Your task to perform on an android device: turn pop-ups off in chrome Image 0: 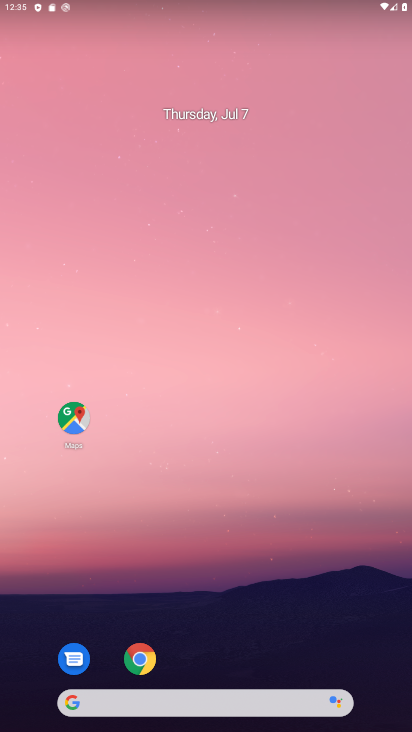
Step 0: click (142, 657)
Your task to perform on an android device: turn pop-ups off in chrome Image 1: 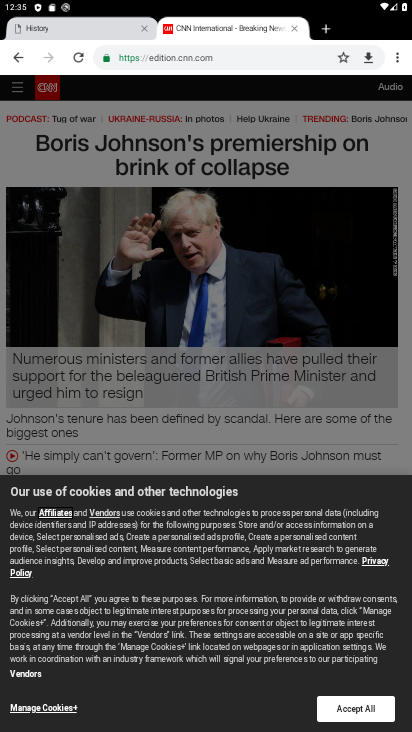
Step 1: click (394, 55)
Your task to perform on an android device: turn pop-ups off in chrome Image 2: 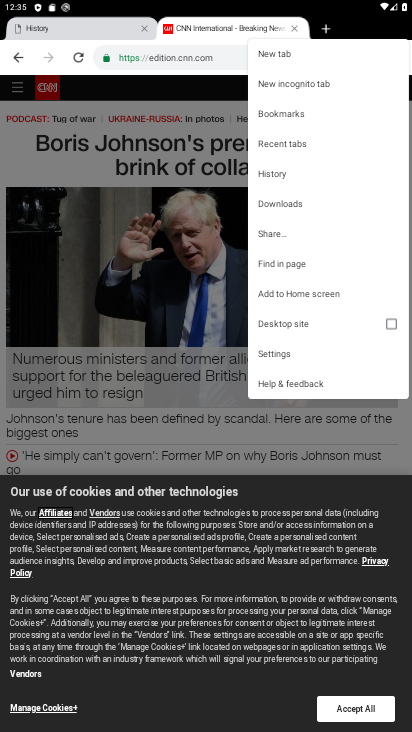
Step 2: click (283, 351)
Your task to perform on an android device: turn pop-ups off in chrome Image 3: 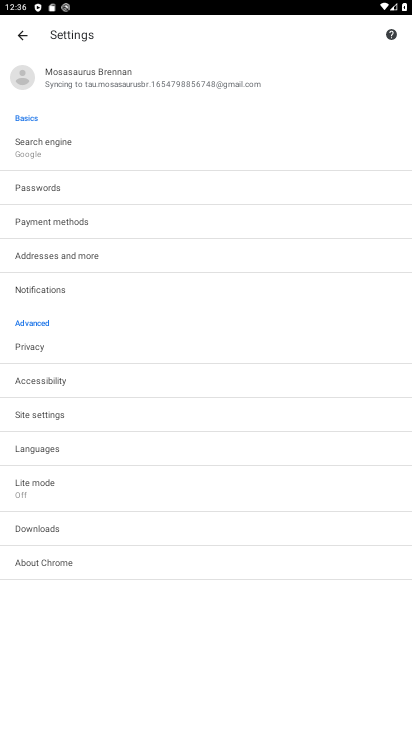
Step 3: click (50, 416)
Your task to perform on an android device: turn pop-ups off in chrome Image 4: 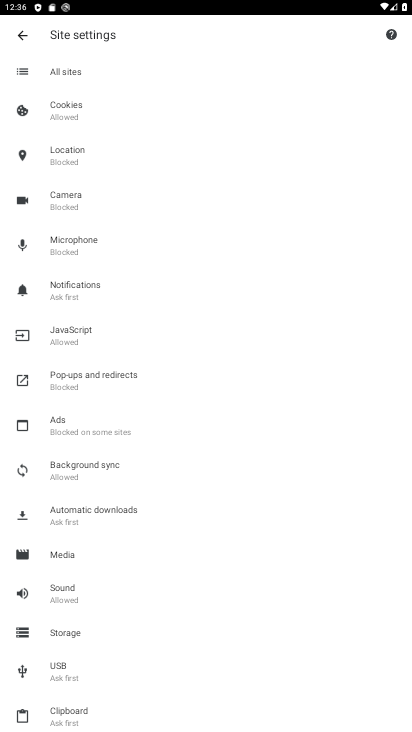
Step 4: click (103, 369)
Your task to perform on an android device: turn pop-ups off in chrome Image 5: 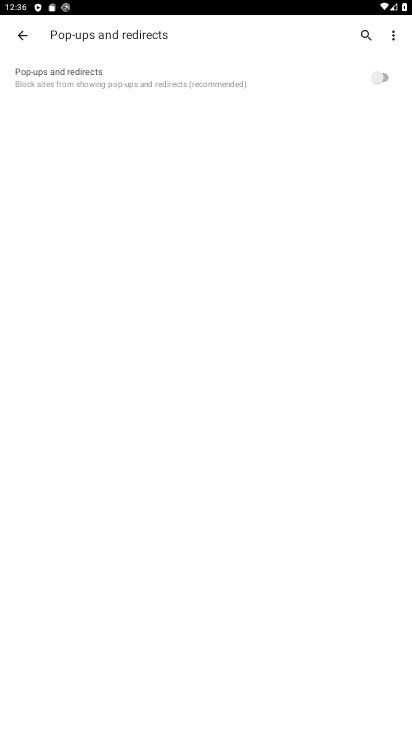
Step 5: task complete